Your task to perform on an android device: Search for acer nitro on bestbuy.com, select the first entry, and add it to the cart. Image 0: 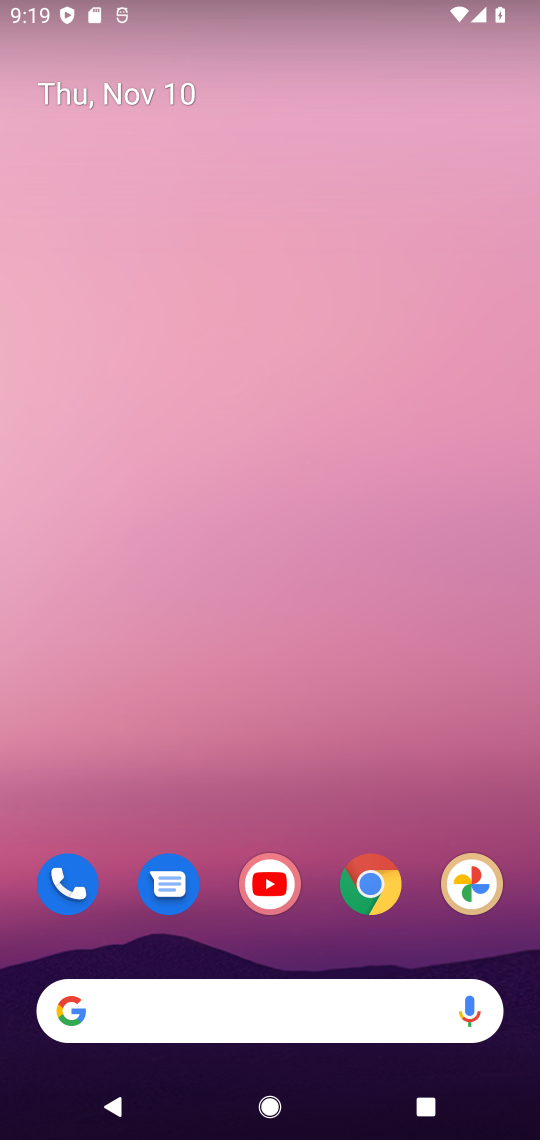
Step 0: click (239, 1001)
Your task to perform on an android device: Search for acer nitro on bestbuy.com, select the first entry, and add it to the cart. Image 1: 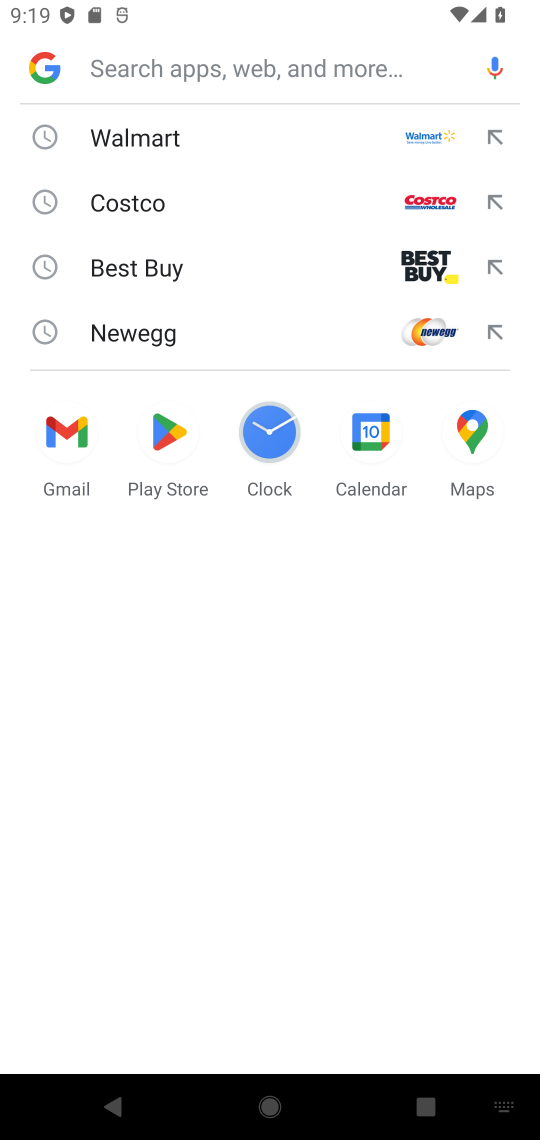
Step 1: click (165, 272)
Your task to perform on an android device: Search for acer nitro on bestbuy.com, select the first entry, and add it to the cart. Image 2: 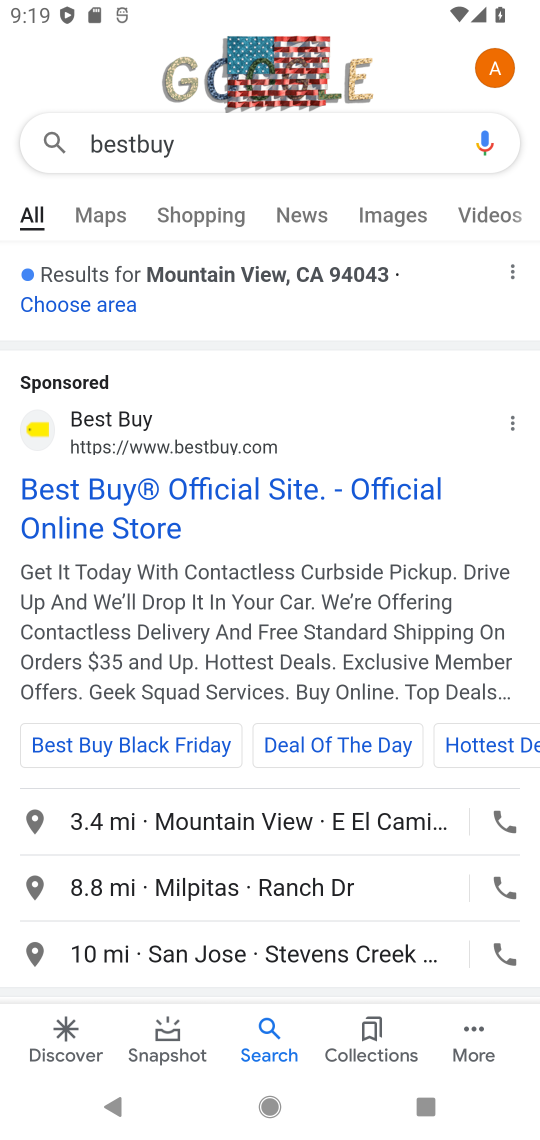
Step 2: click (114, 406)
Your task to perform on an android device: Search for acer nitro on bestbuy.com, select the first entry, and add it to the cart. Image 3: 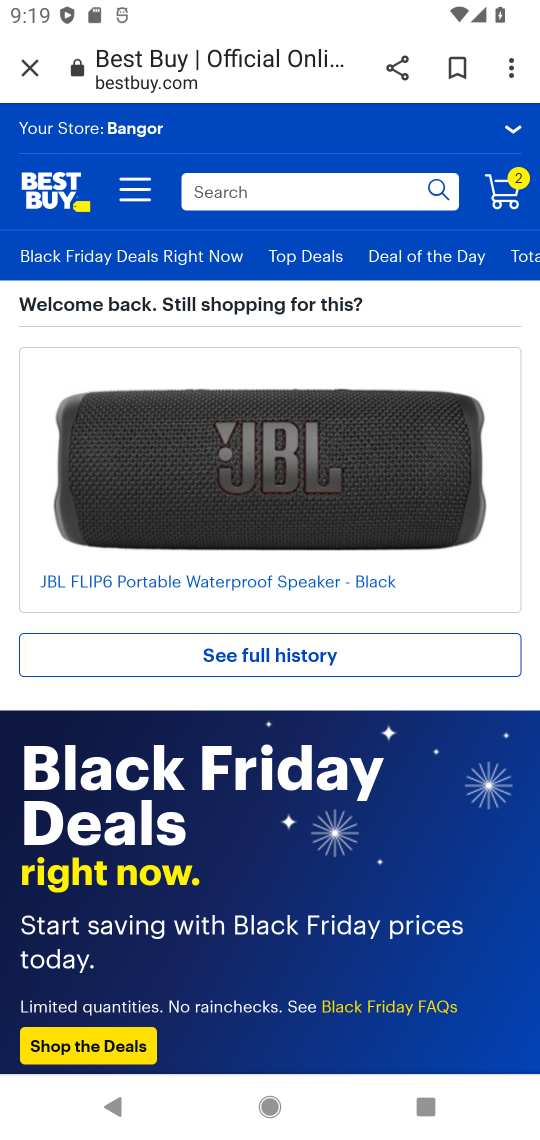
Step 3: click (343, 177)
Your task to perform on an android device: Search for acer nitro on bestbuy.com, select the first entry, and add it to the cart. Image 4: 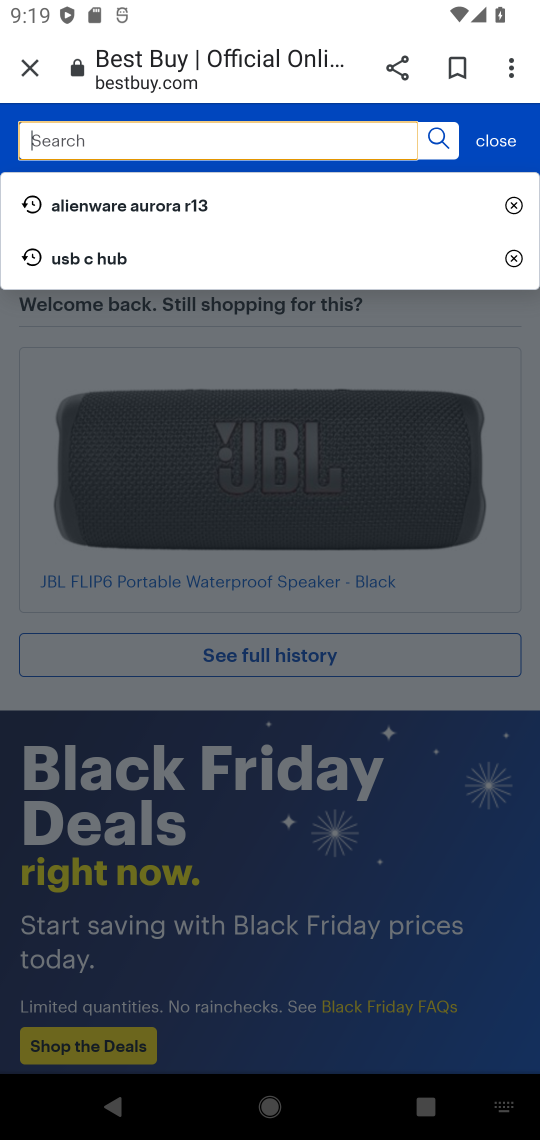
Step 4: click (297, 140)
Your task to perform on an android device: Search for acer nitro on bestbuy.com, select the first entry, and add it to the cart. Image 5: 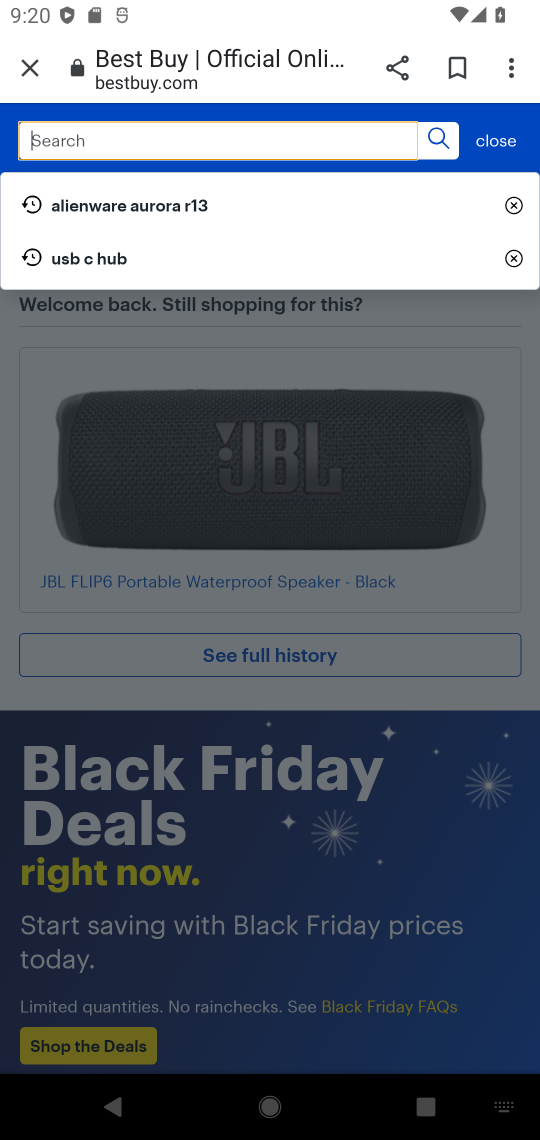
Step 5: type "acer nitro "
Your task to perform on an android device: Search for acer nitro on bestbuy.com, select the first entry, and add it to the cart. Image 6: 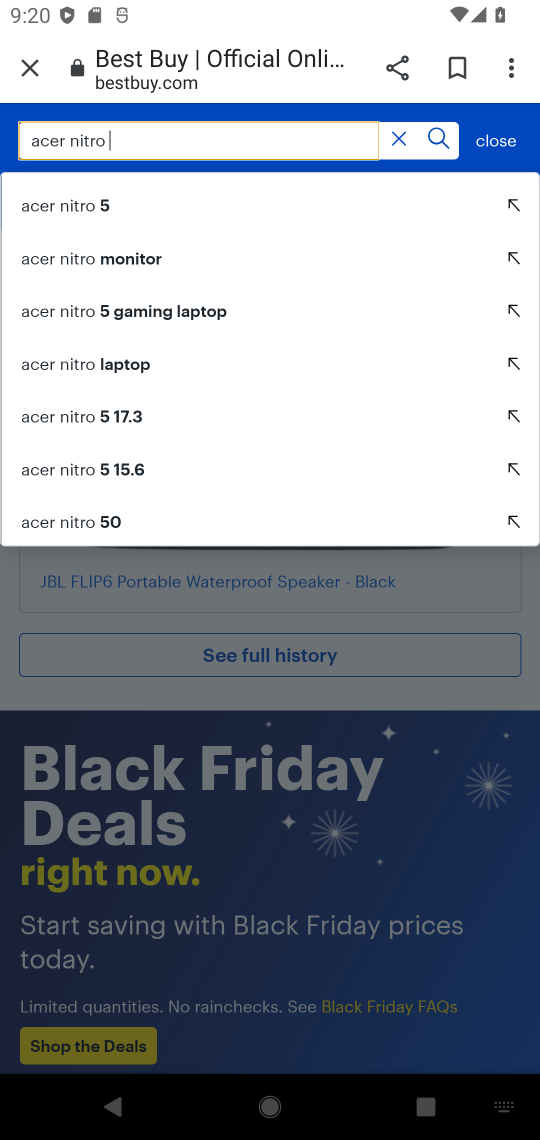
Step 6: click (71, 206)
Your task to perform on an android device: Search for acer nitro on bestbuy.com, select the first entry, and add it to the cart. Image 7: 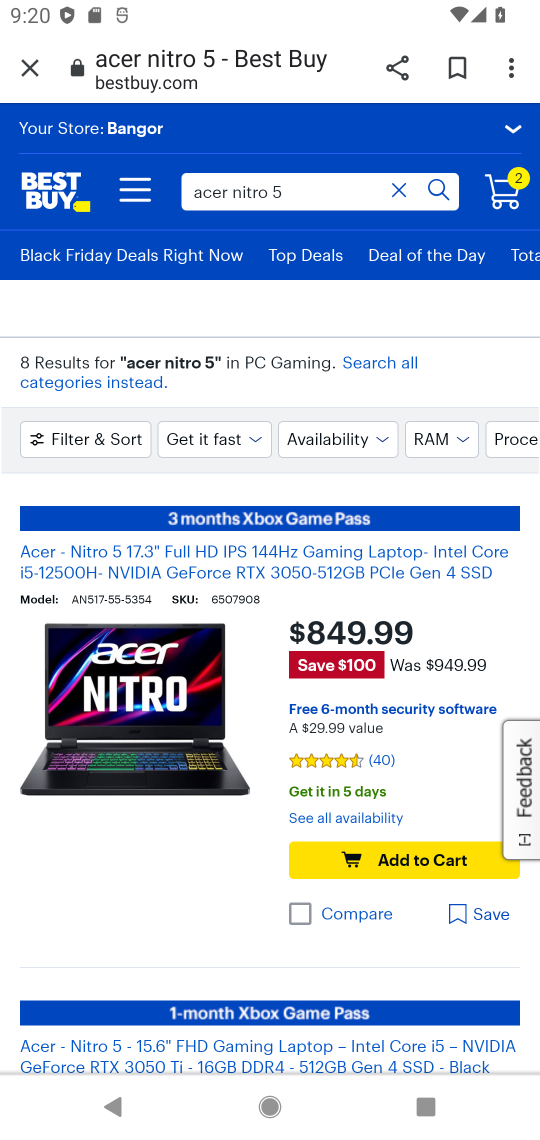
Step 7: click (409, 857)
Your task to perform on an android device: Search for acer nitro on bestbuy.com, select the first entry, and add it to the cart. Image 8: 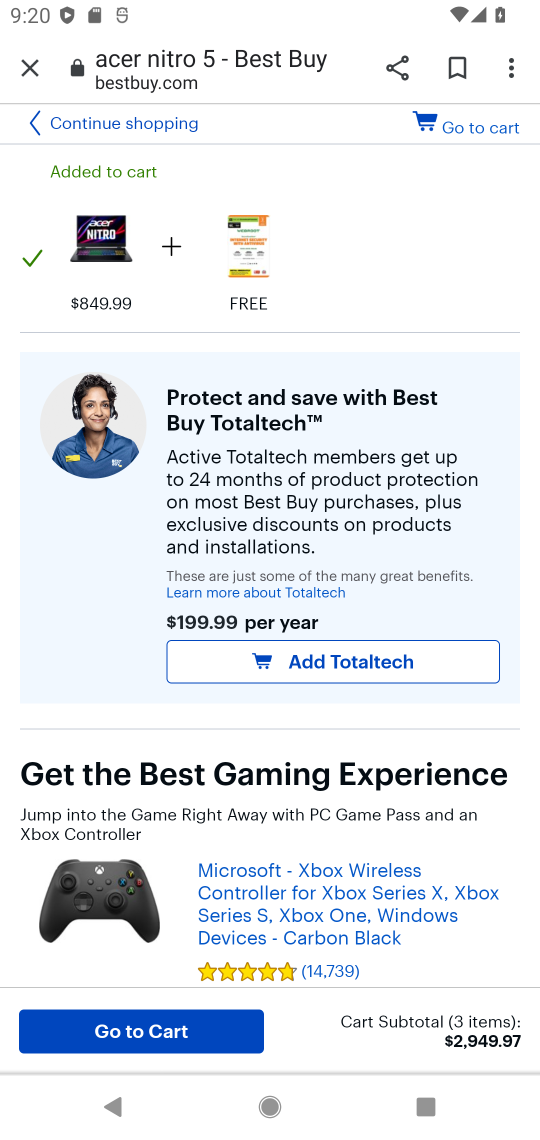
Step 8: task complete